Your task to perform on an android device: What's on my calendar tomorrow? Image 0: 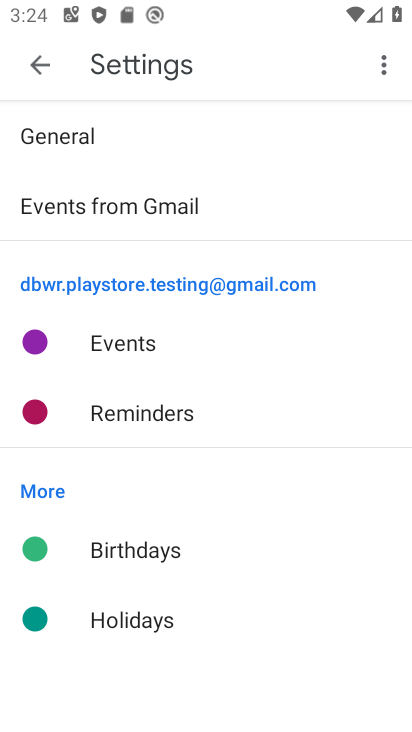
Step 0: press home button
Your task to perform on an android device: What's on my calendar tomorrow? Image 1: 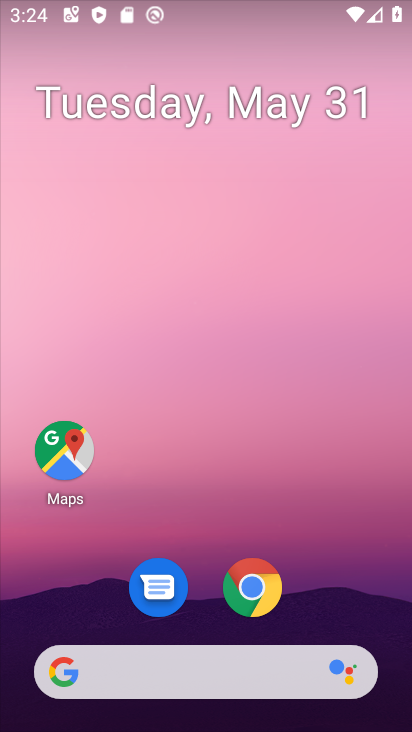
Step 1: drag from (330, 623) to (323, 48)
Your task to perform on an android device: What's on my calendar tomorrow? Image 2: 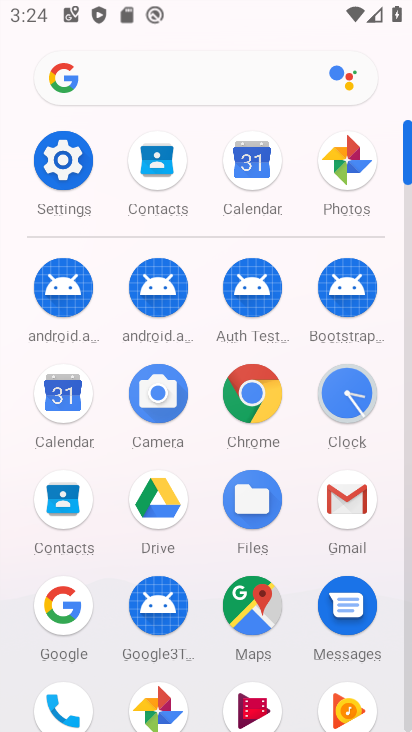
Step 2: click (63, 407)
Your task to perform on an android device: What's on my calendar tomorrow? Image 3: 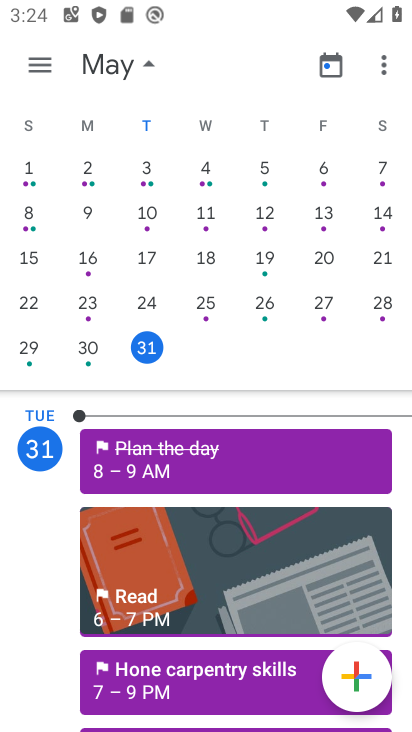
Step 3: drag from (318, 347) to (18, 378)
Your task to perform on an android device: What's on my calendar tomorrow? Image 4: 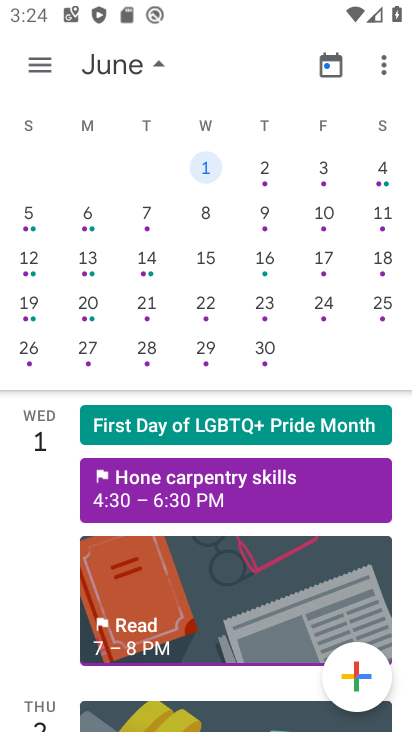
Step 4: click (217, 169)
Your task to perform on an android device: What's on my calendar tomorrow? Image 5: 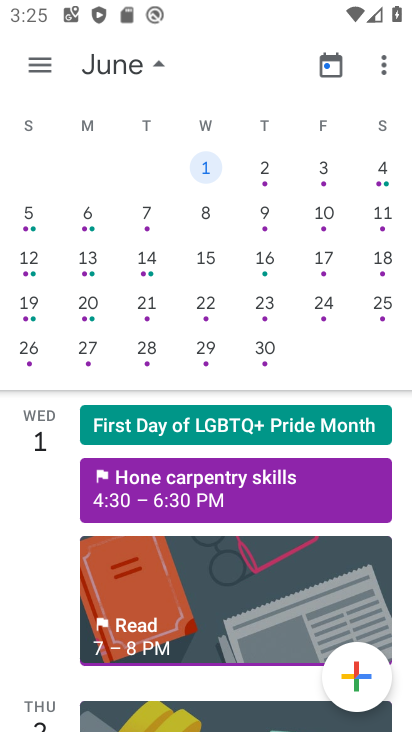
Step 5: task complete